Your task to perform on an android device: Open the phone app and click the voicemail tab. Image 0: 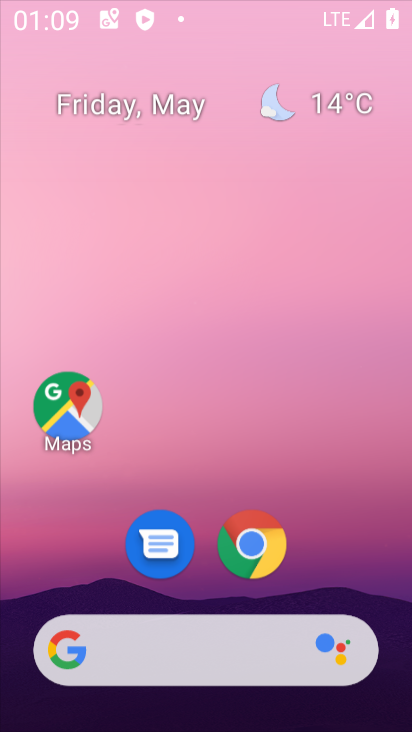
Step 0: drag from (289, 369) to (289, 161)
Your task to perform on an android device: Open the phone app and click the voicemail tab. Image 1: 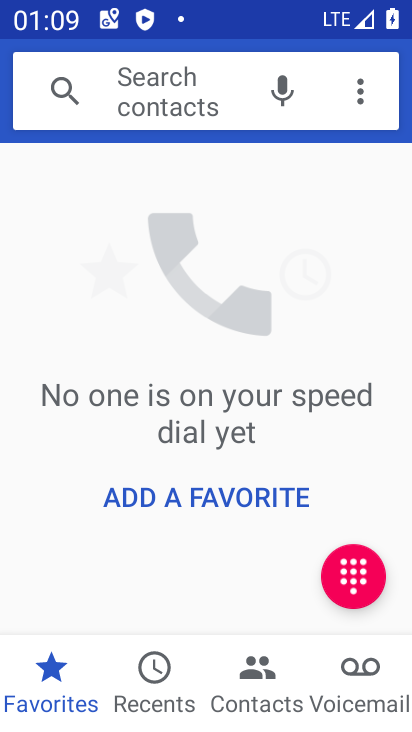
Step 1: press home button
Your task to perform on an android device: Open the phone app and click the voicemail tab. Image 2: 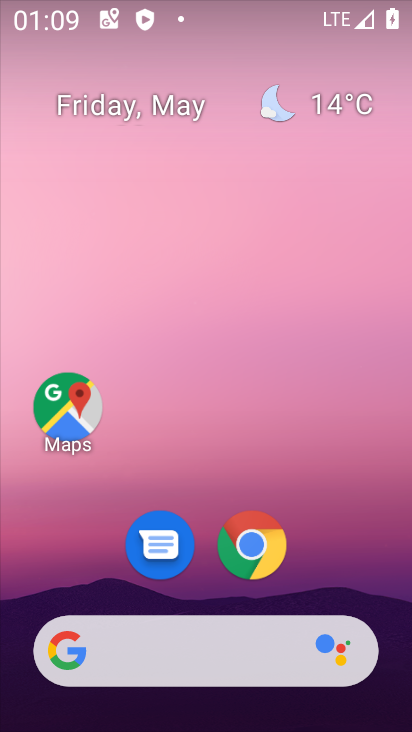
Step 2: drag from (320, 589) to (310, 244)
Your task to perform on an android device: Open the phone app and click the voicemail tab. Image 3: 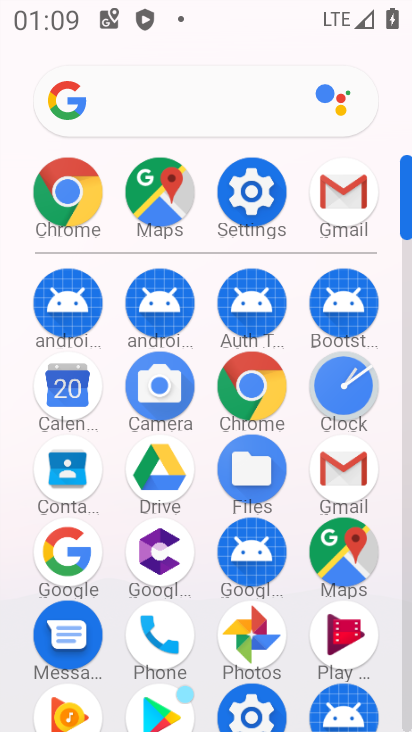
Step 3: click (165, 652)
Your task to perform on an android device: Open the phone app and click the voicemail tab. Image 4: 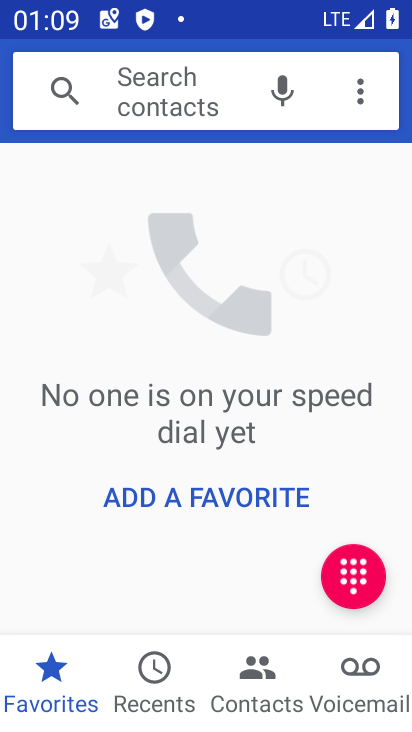
Step 4: click (344, 692)
Your task to perform on an android device: Open the phone app and click the voicemail tab. Image 5: 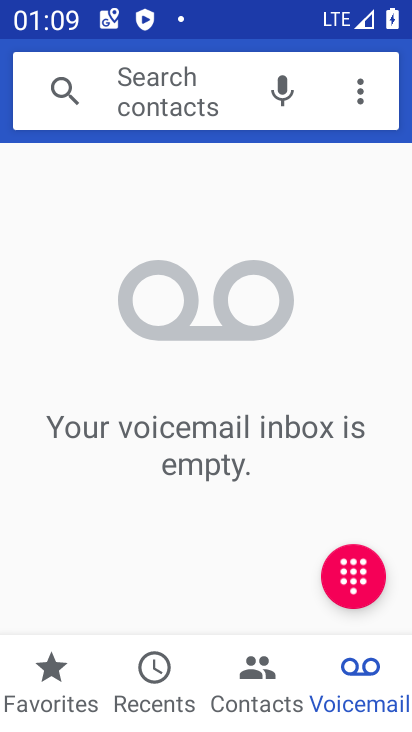
Step 5: task complete